Your task to perform on an android device: see creations saved in the google photos Image 0: 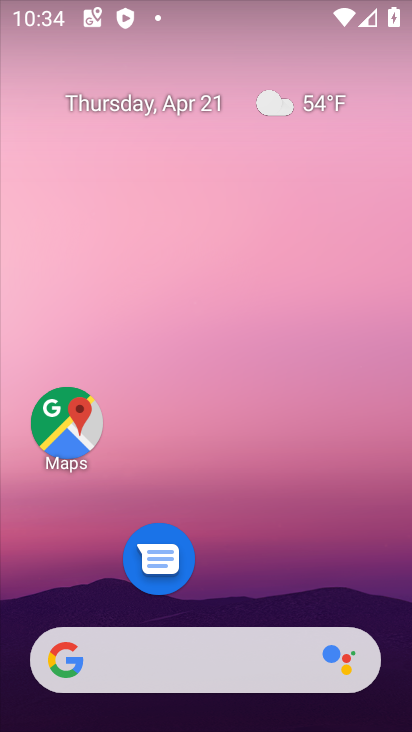
Step 0: drag from (255, 551) to (321, 69)
Your task to perform on an android device: see creations saved in the google photos Image 1: 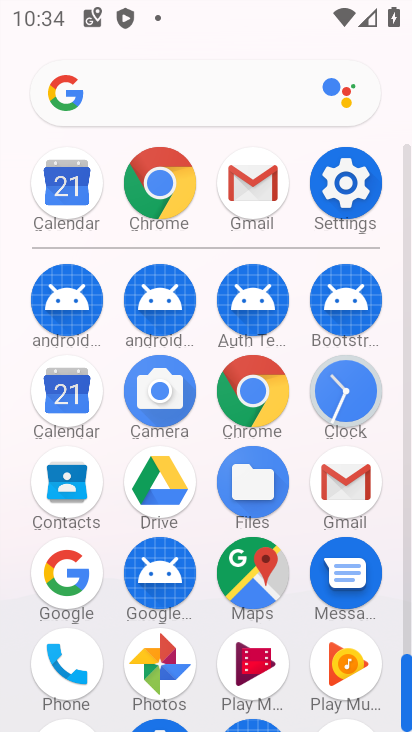
Step 1: click (162, 664)
Your task to perform on an android device: see creations saved in the google photos Image 2: 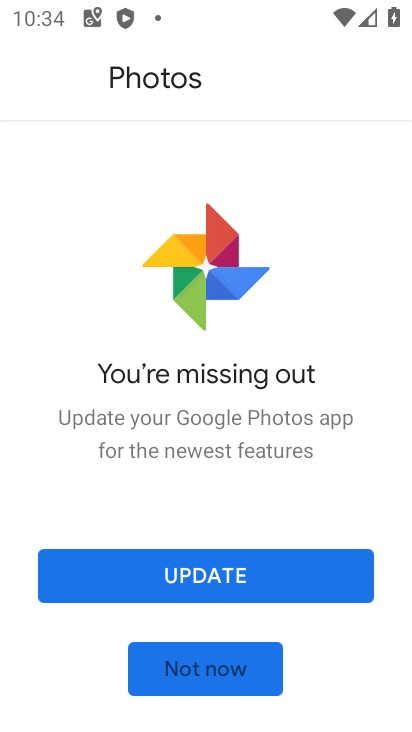
Step 2: click (228, 671)
Your task to perform on an android device: see creations saved in the google photos Image 3: 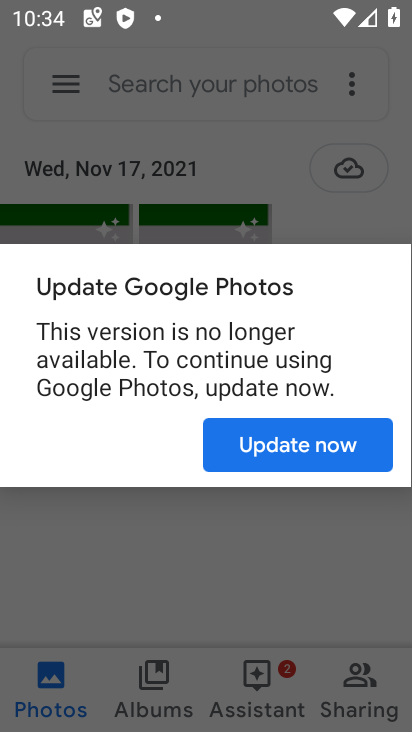
Step 3: click (271, 442)
Your task to perform on an android device: see creations saved in the google photos Image 4: 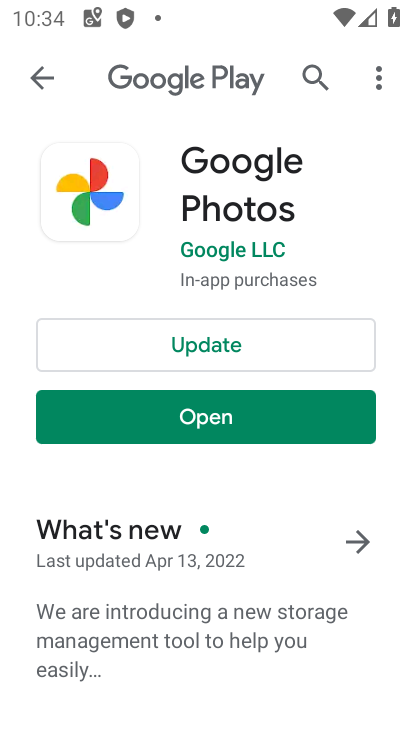
Step 4: click (238, 417)
Your task to perform on an android device: see creations saved in the google photos Image 5: 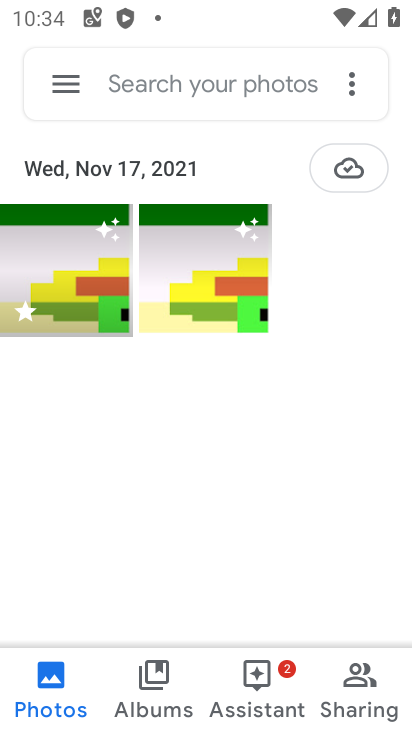
Step 5: click (74, 81)
Your task to perform on an android device: see creations saved in the google photos Image 6: 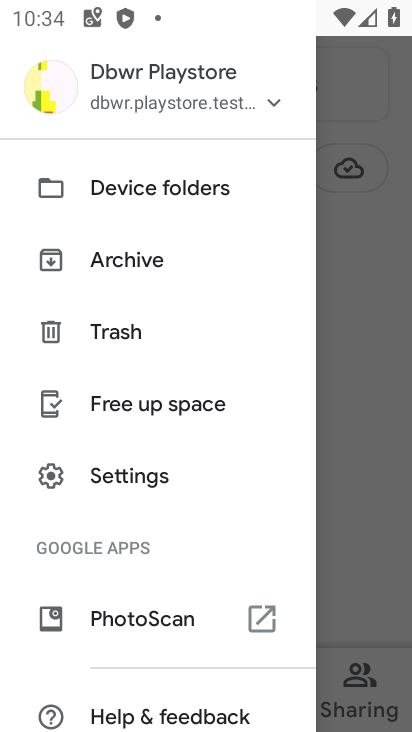
Step 6: click (136, 269)
Your task to perform on an android device: see creations saved in the google photos Image 7: 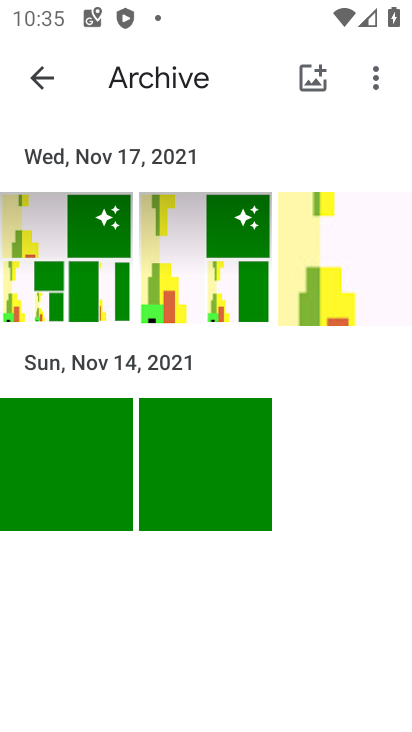
Step 7: task complete